Your task to perform on an android device: Go to settings Image 0: 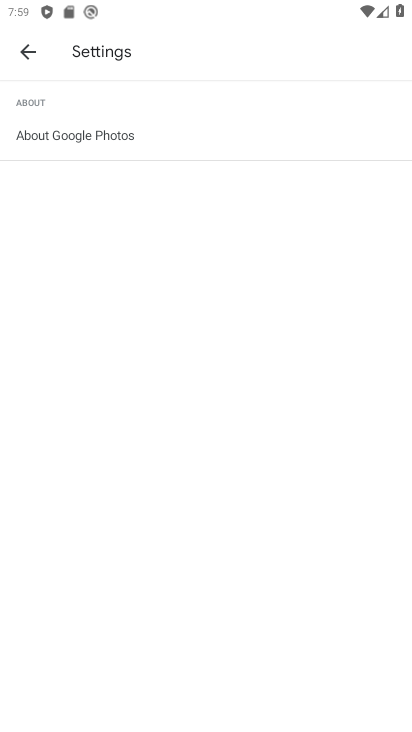
Step 0: press home button
Your task to perform on an android device: Go to settings Image 1: 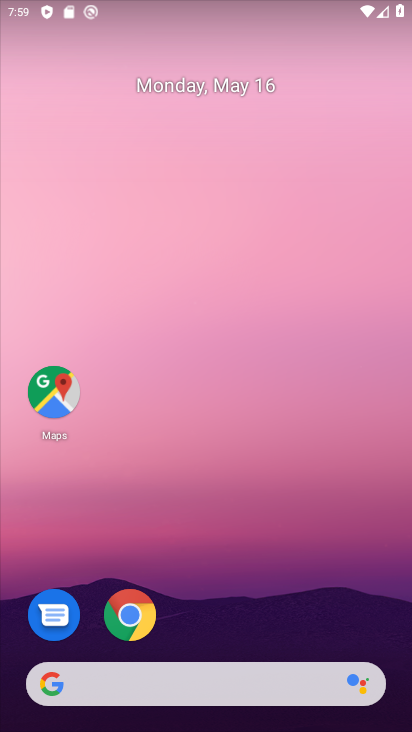
Step 1: drag from (256, 665) to (306, 3)
Your task to perform on an android device: Go to settings Image 2: 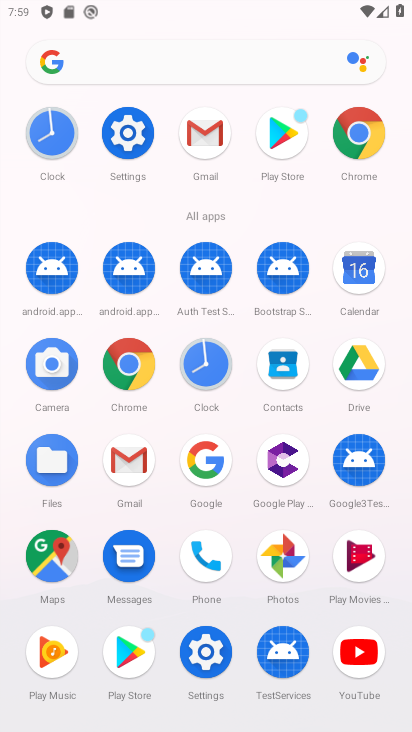
Step 2: drag from (153, 654) to (155, 349)
Your task to perform on an android device: Go to settings Image 3: 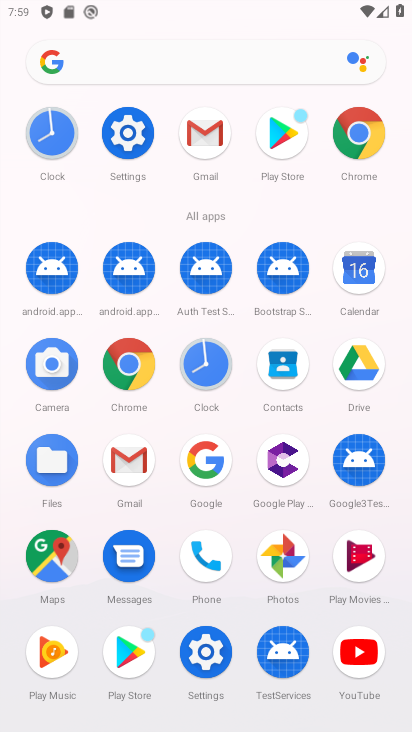
Step 3: click (206, 672)
Your task to perform on an android device: Go to settings Image 4: 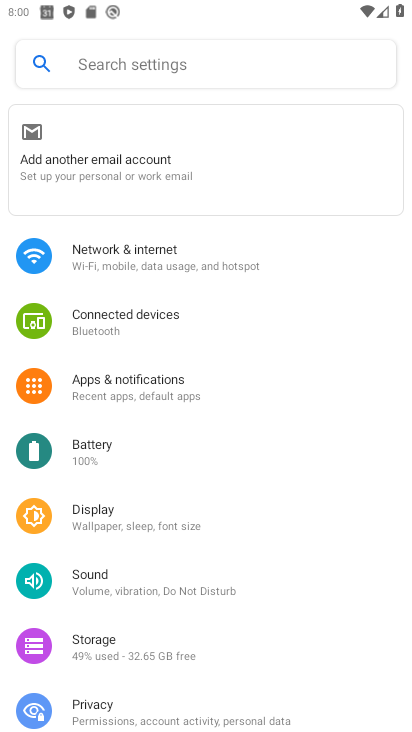
Step 4: task complete